Your task to perform on an android device: Open Wikipedia Image 0: 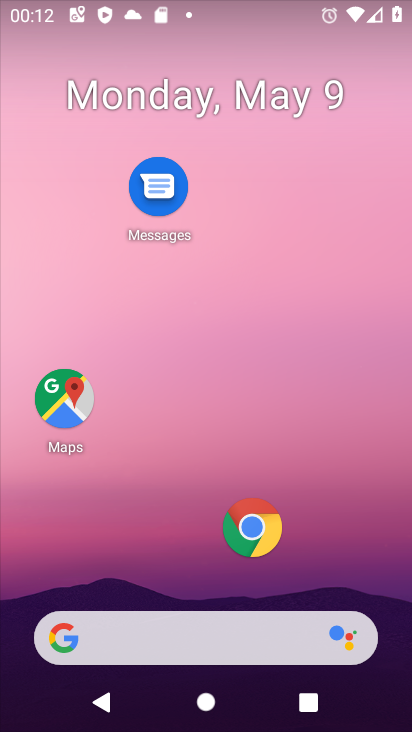
Step 0: click (249, 526)
Your task to perform on an android device: Open Wikipedia Image 1: 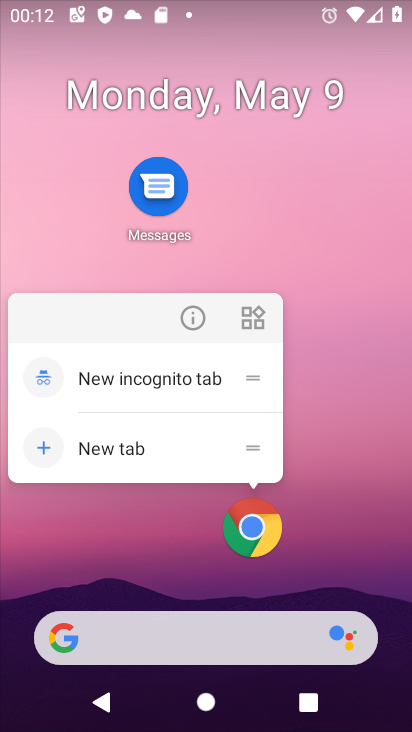
Step 1: click (257, 529)
Your task to perform on an android device: Open Wikipedia Image 2: 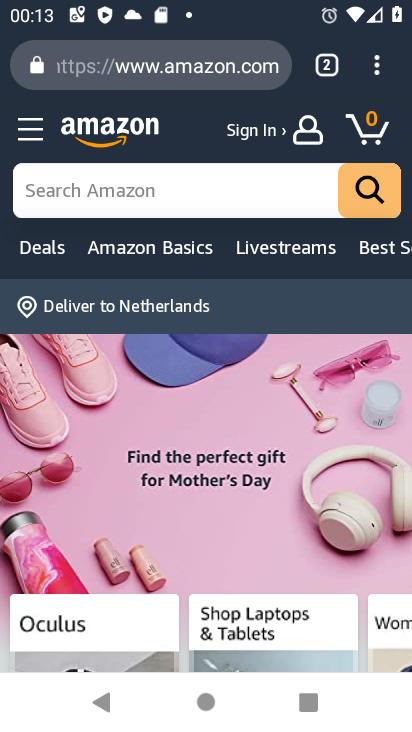
Step 2: click (371, 66)
Your task to perform on an android device: Open Wikipedia Image 3: 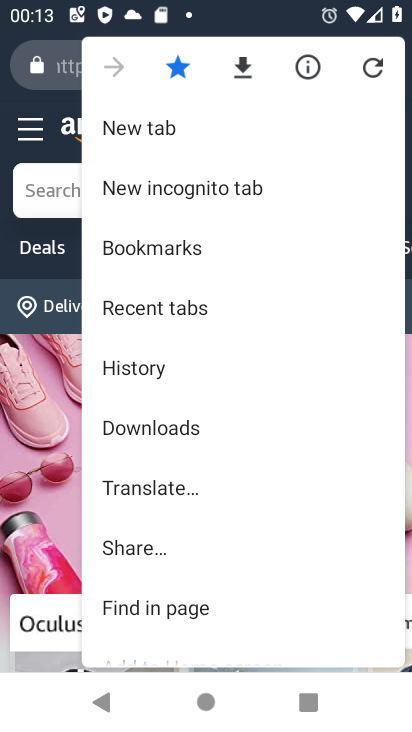
Step 3: drag from (248, 532) to (245, 381)
Your task to perform on an android device: Open Wikipedia Image 4: 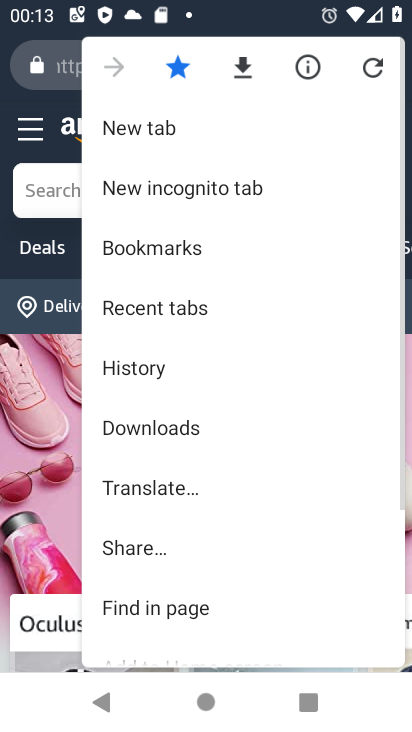
Step 4: click (24, 156)
Your task to perform on an android device: Open Wikipedia Image 5: 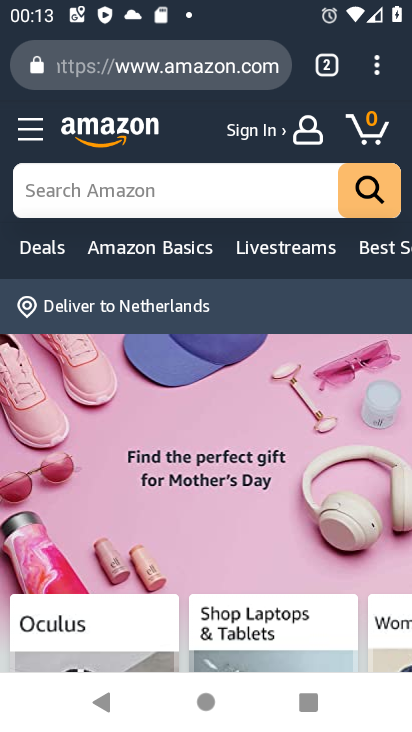
Step 5: press back button
Your task to perform on an android device: Open Wikipedia Image 6: 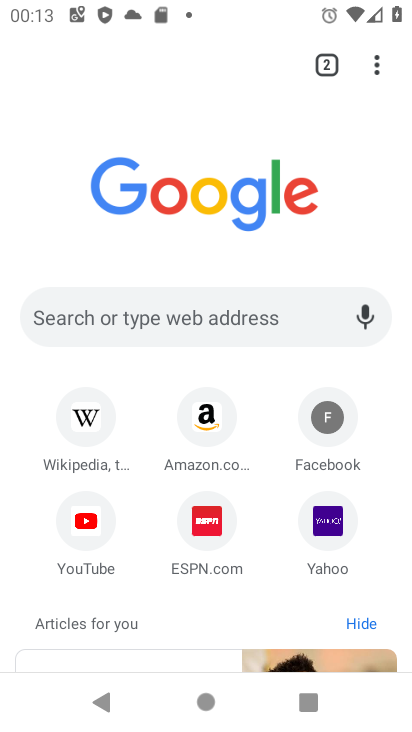
Step 6: click (91, 414)
Your task to perform on an android device: Open Wikipedia Image 7: 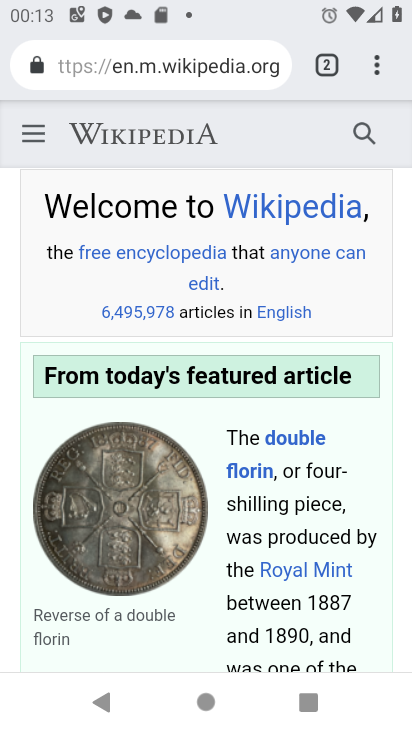
Step 7: task complete